Your task to perform on an android device: set the timer Image 0: 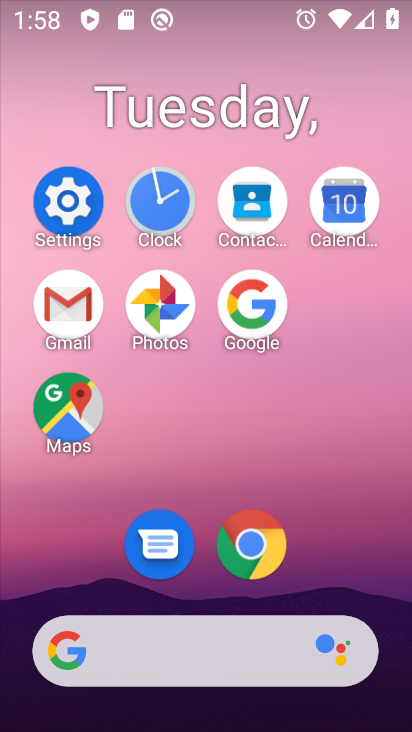
Step 0: click (165, 206)
Your task to perform on an android device: set the timer Image 1: 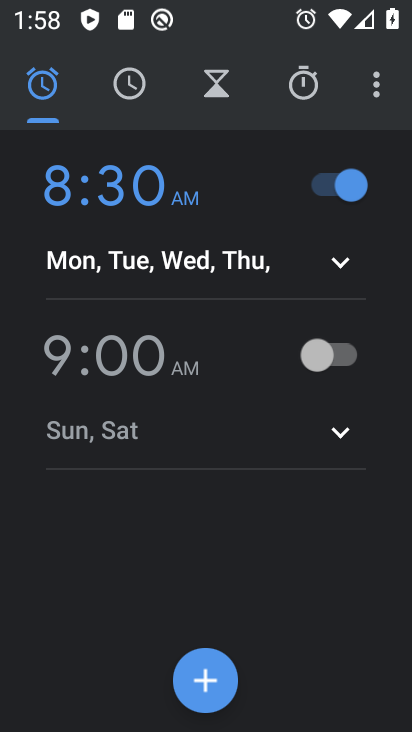
Step 1: click (200, 87)
Your task to perform on an android device: set the timer Image 2: 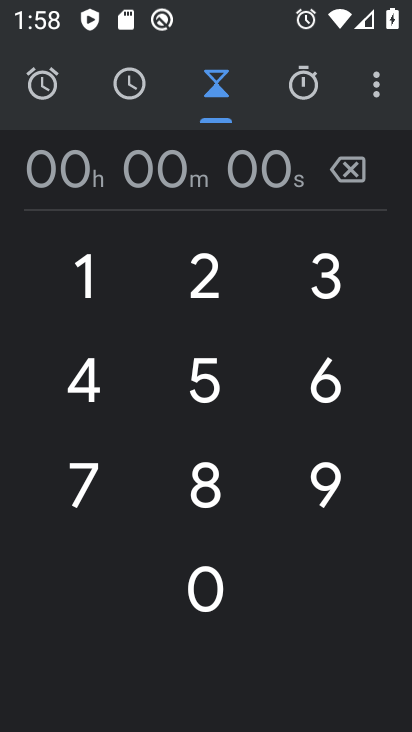
Step 2: click (228, 291)
Your task to perform on an android device: set the timer Image 3: 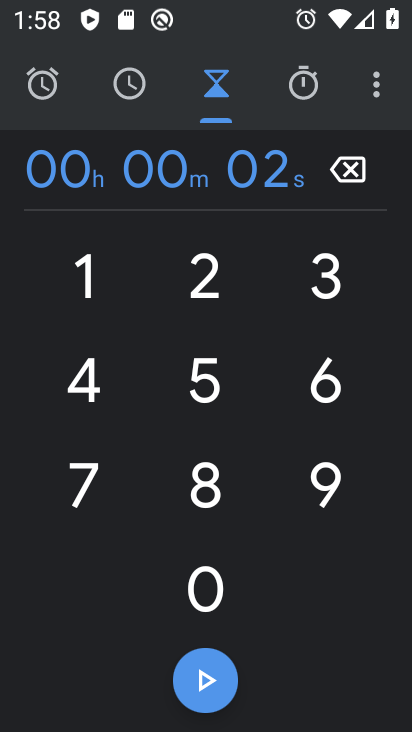
Step 3: click (214, 276)
Your task to perform on an android device: set the timer Image 4: 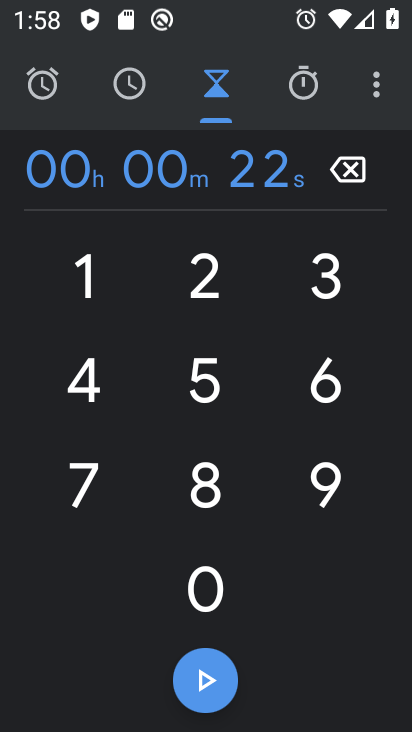
Step 4: click (199, 665)
Your task to perform on an android device: set the timer Image 5: 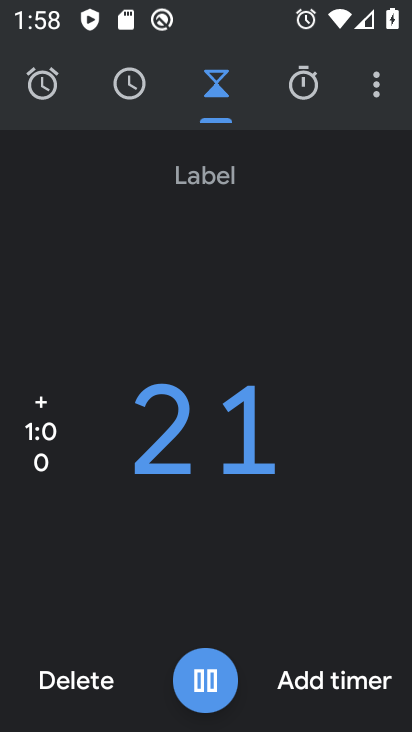
Step 5: task complete